Your task to perform on an android device: set the stopwatch Image 0: 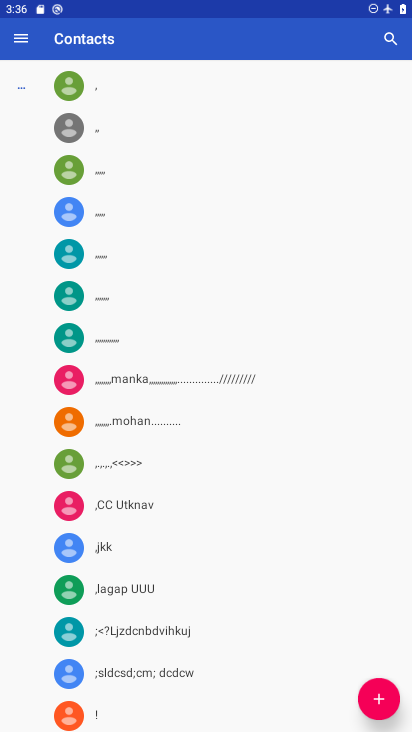
Step 0: press home button
Your task to perform on an android device: set the stopwatch Image 1: 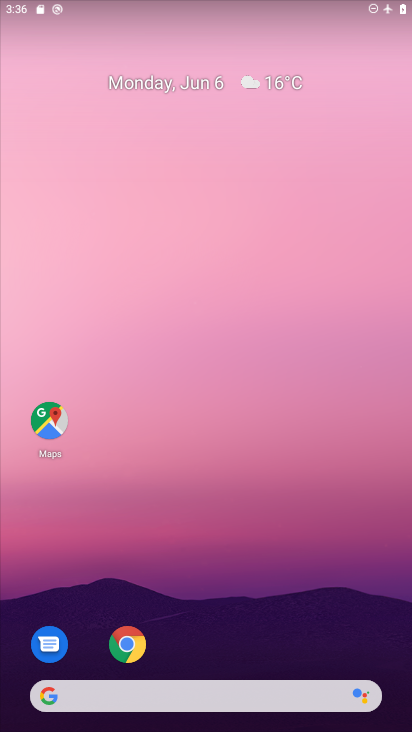
Step 1: drag from (262, 612) to (217, 0)
Your task to perform on an android device: set the stopwatch Image 2: 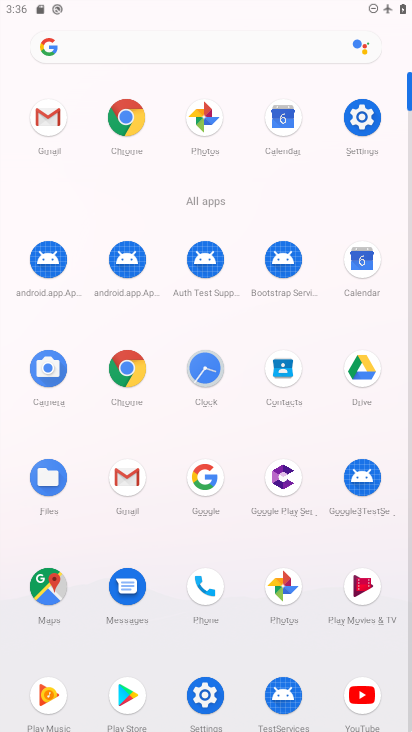
Step 2: click (203, 368)
Your task to perform on an android device: set the stopwatch Image 3: 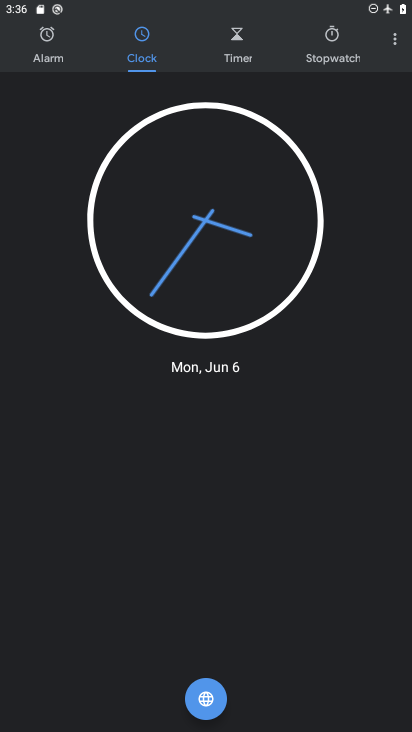
Step 3: click (329, 48)
Your task to perform on an android device: set the stopwatch Image 4: 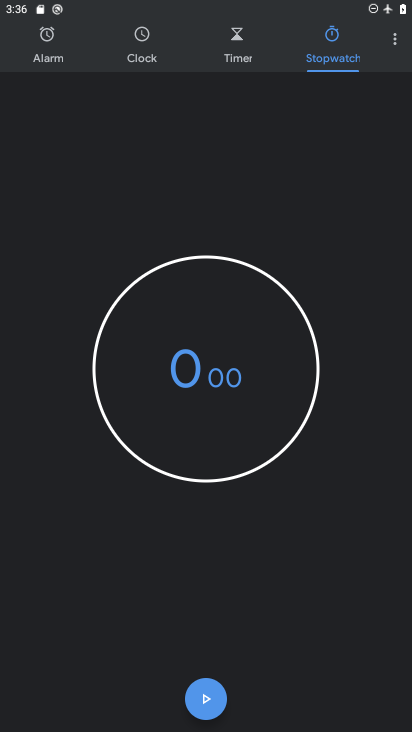
Step 4: click (203, 698)
Your task to perform on an android device: set the stopwatch Image 5: 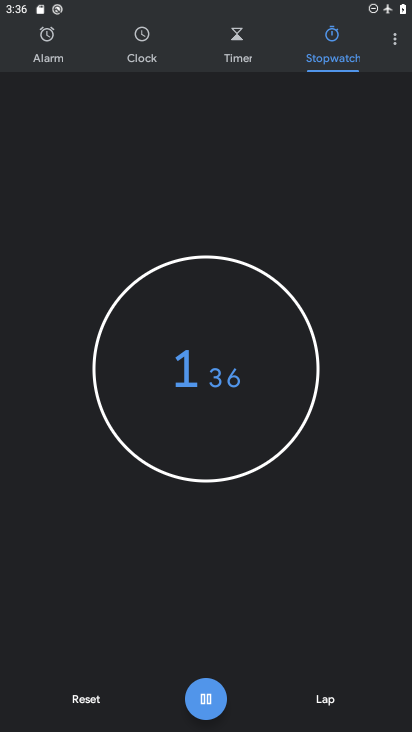
Step 5: click (203, 698)
Your task to perform on an android device: set the stopwatch Image 6: 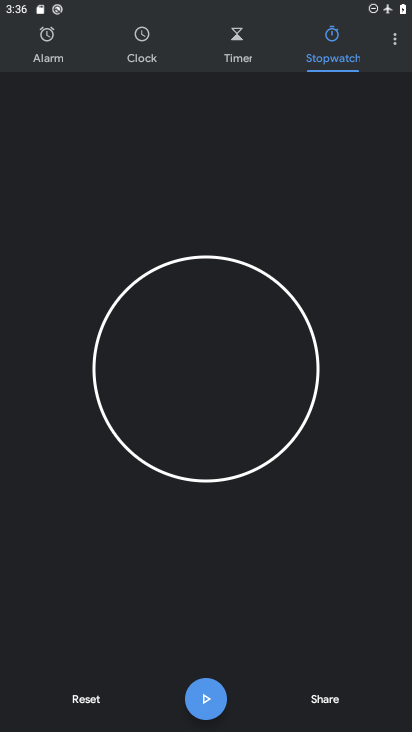
Step 6: task complete